Your task to perform on an android device: What's the weather going to be tomorrow? Image 0: 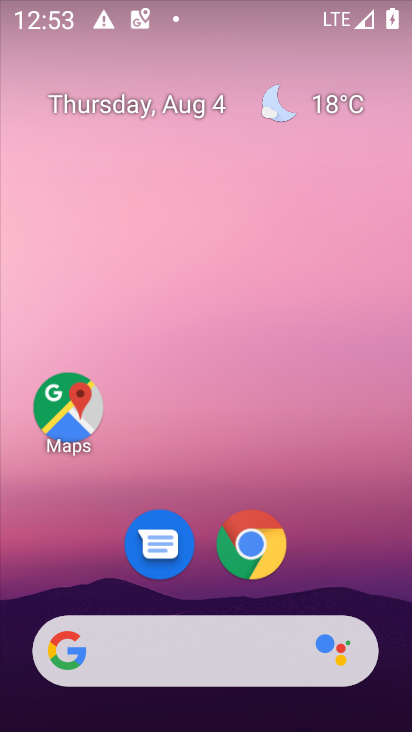
Step 0: drag from (374, 635) to (305, 200)
Your task to perform on an android device: What's the weather going to be tomorrow? Image 1: 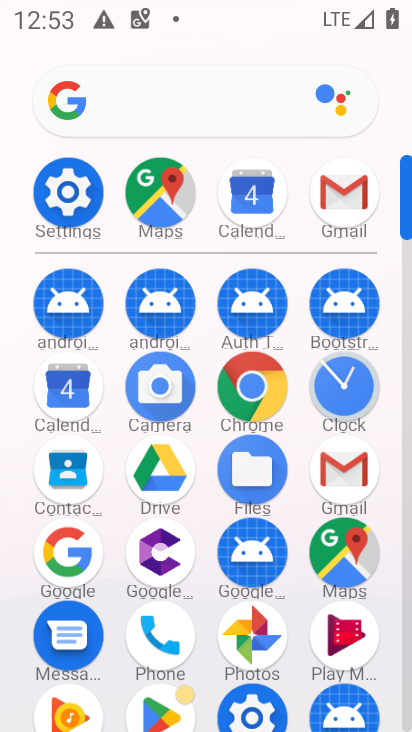
Step 1: click (83, 553)
Your task to perform on an android device: What's the weather going to be tomorrow? Image 2: 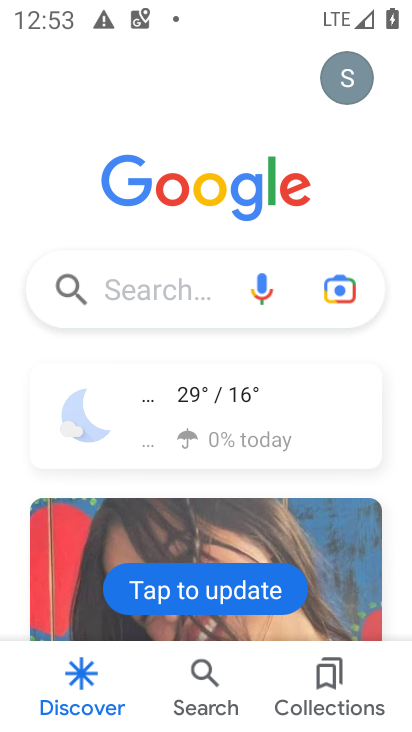
Step 2: click (228, 396)
Your task to perform on an android device: What's the weather going to be tomorrow? Image 3: 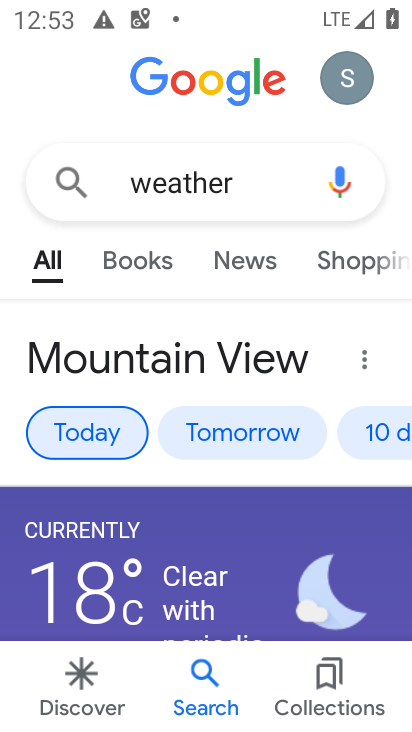
Step 3: drag from (312, 435) to (260, 161)
Your task to perform on an android device: What's the weather going to be tomorrow? Image 4: 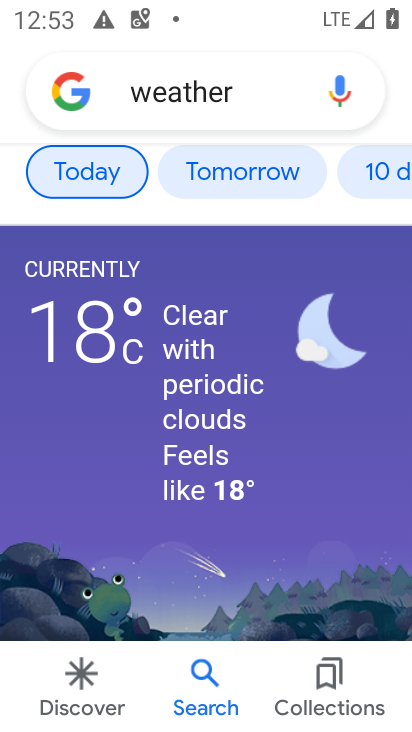
Step 4: click (222, 172)
Your task to perform on an android device: What's the weather going to be tomorrow? Image 5: 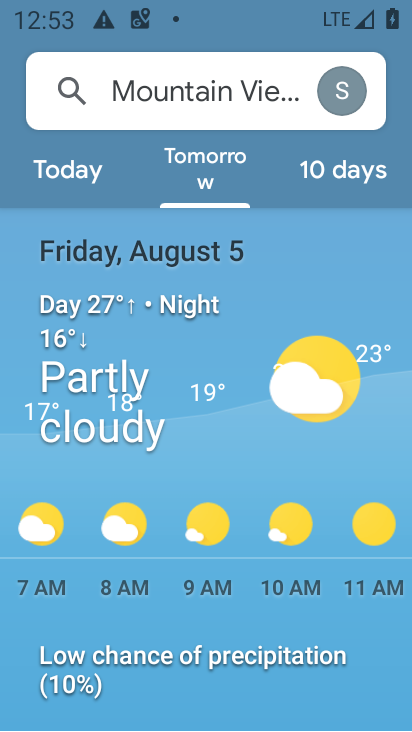
Step 5: task complete